Your task to perform on an android device: toggle priority inbox in the gmail app Image 0: 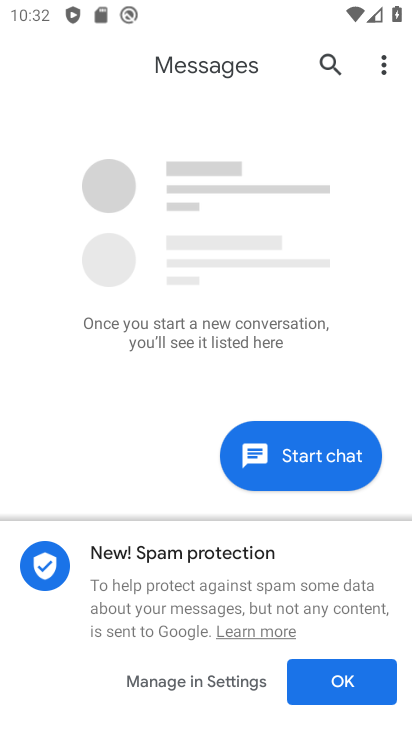
Step 0: press back button
Your task to perform on an android device: toggle priority inbox in the gmail app Image 1: 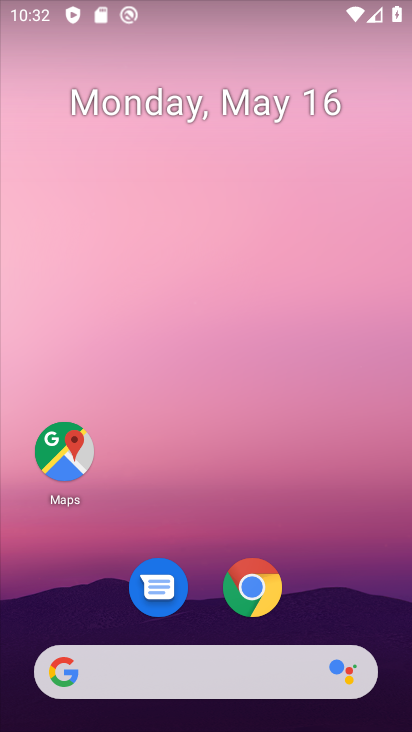
Step 1: drag from (360, 517) to (253, 6)
Your task to perform on an android device: toggle priority inbox in the gmail app Image 2: 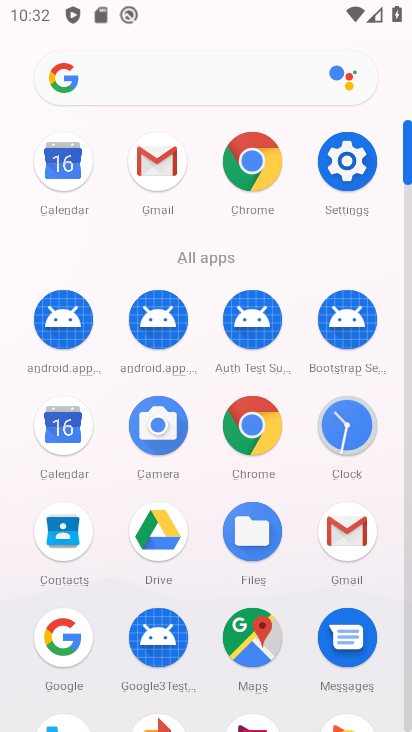
Step 2: click (344, 530)
Your task to perform on an android device: toggle priority inbox in the gmail app Image 3: 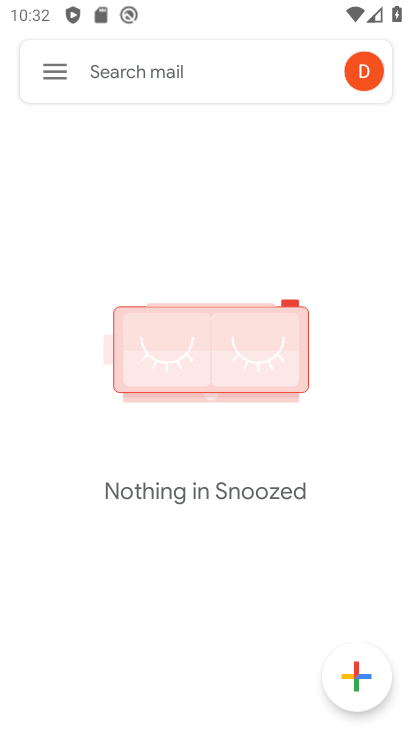
Step 3: click (53, 59)
Your task to perform on an android device: toggle priority inbox in the gmail app Image 4: 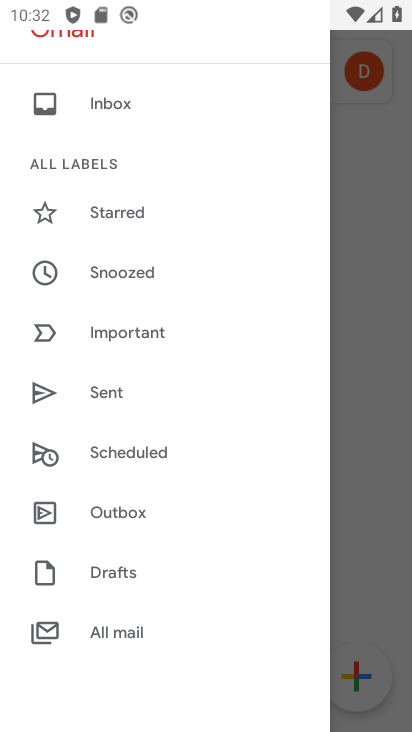
Step 4: drag from (176, 641) to (202, 227)
Your task to perform on an android device: toggle priority inbox in the gmail app Image 5: 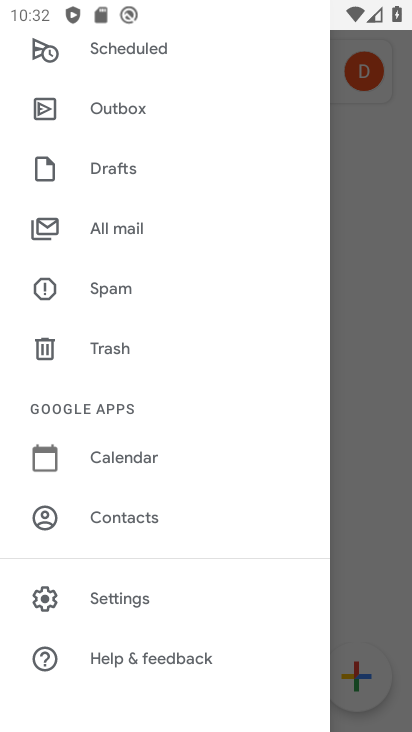
Step 5: click (149, 596)
Your task to perform on an android device: toggle priority inbox in the gmail app Image 6: 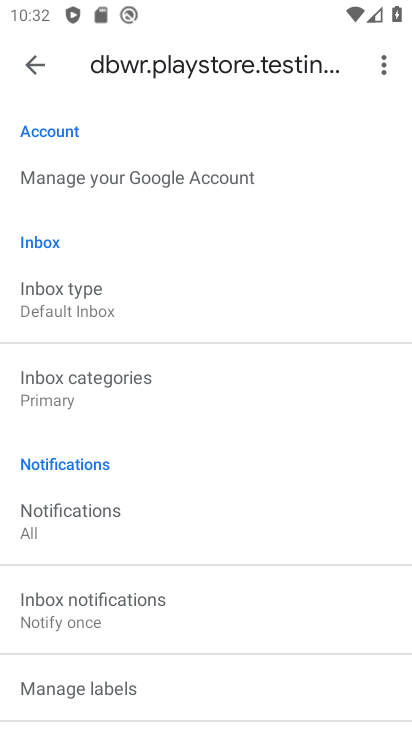
Step 6: click (129, 304)
Your task to perform on an android device: toggle priority inbox in the gmail app Image 7: 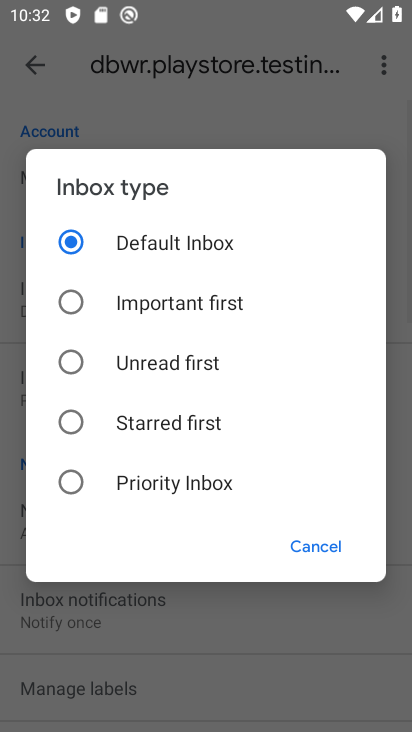
Step 7: click (161, 478)
Your task to perform on an android device: toggle priority inbox in the gmail app Image 8: 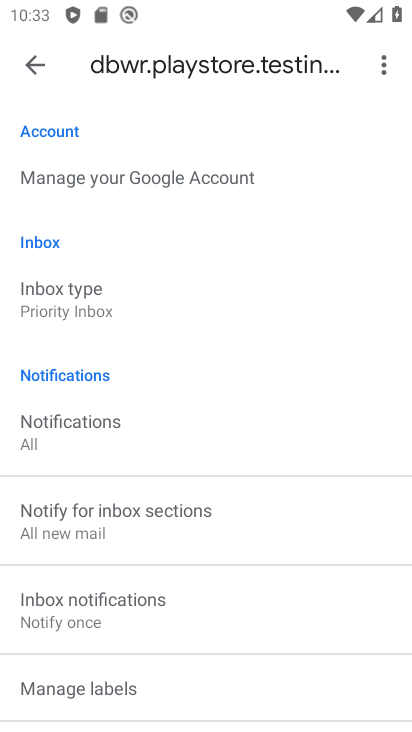
Step 8: task complete